Your task to perform on an android device: Open the calendar and show me this week's events? Image 0: 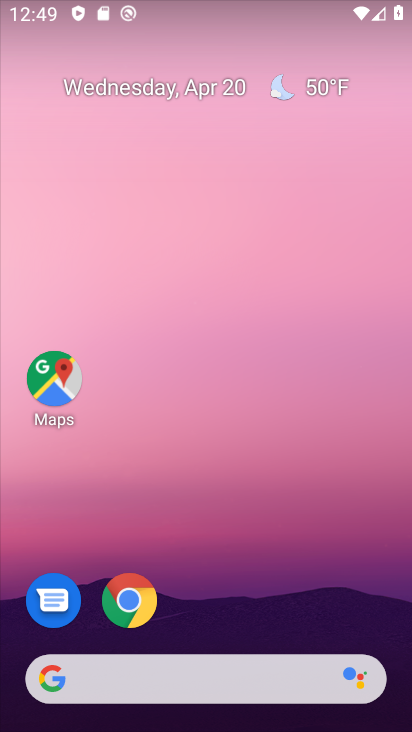
Step 0: drag from (280, 414) to (294, 155)
Your task to perform on an android device: Open the calendar and show me this week's events? Image 1: 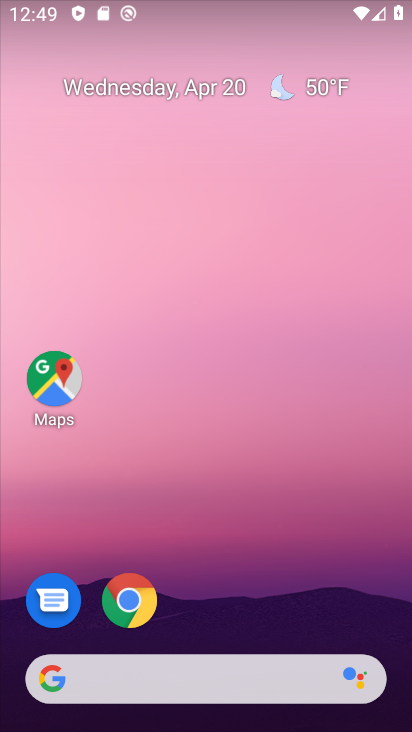
Step 1: drag from (228, 636) to (266, 102)
Your task to perform on an android device: Open the calendar and show me this week's events? Image 2: 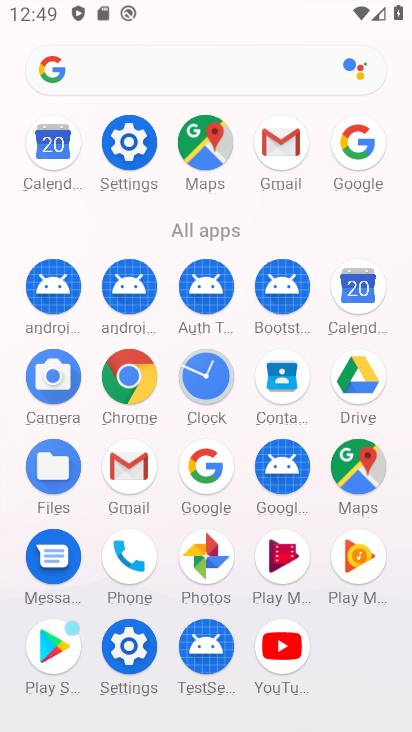
Step 2: click (53, 153)
Your task to perform on an android device: Open the calendar and show me this week's events? Image 3: 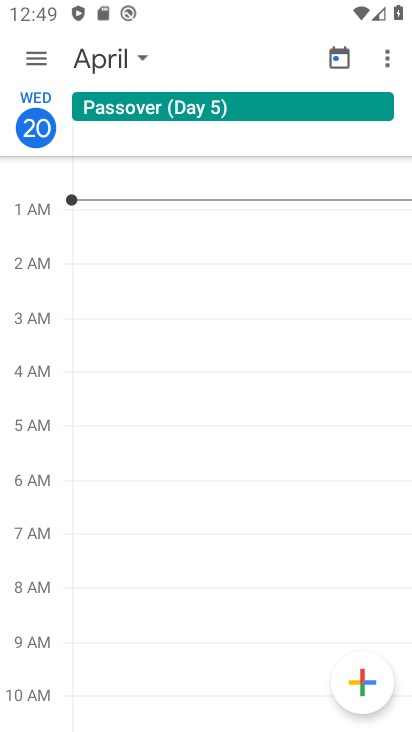
Step 3: click (30, 68)
Your task to perform on an android device: Open the calendar and show me this week's events? Image 4: 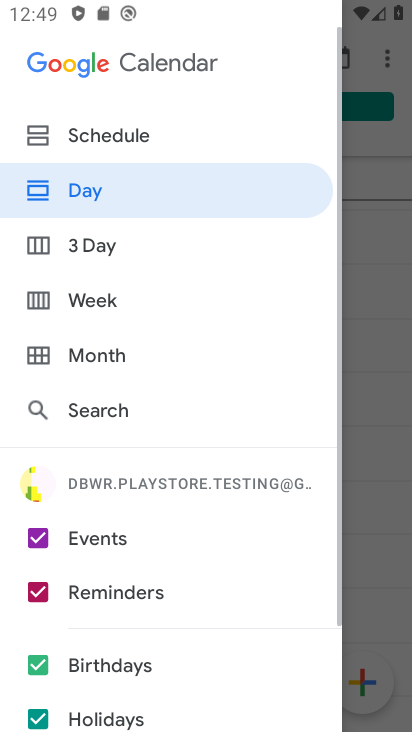
Step 4: click (86, 290)
Your task to perform on an android device: Open the calendar and show me this week's events? Image 5: 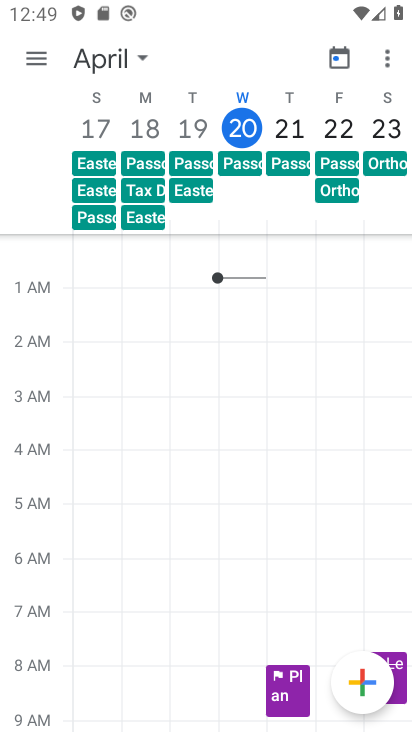
Step 5: task complete